Your task to perform on an android device: Go to accessibility settings Image 0: 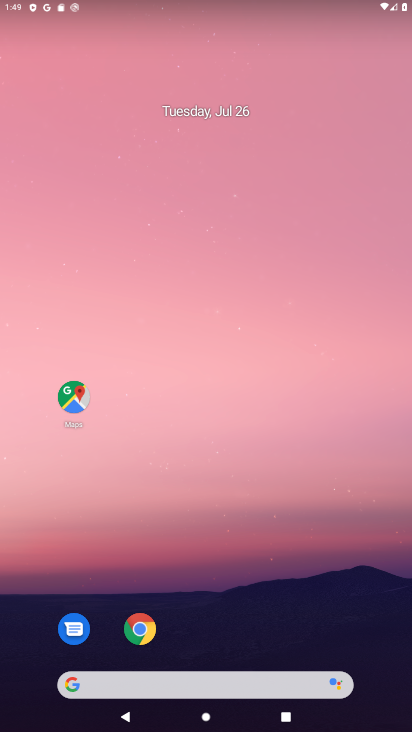
Step 0: drag from (226, 597) to (402, 277)
Your task to perform on an android device: Go to accessibility settings Image 1: 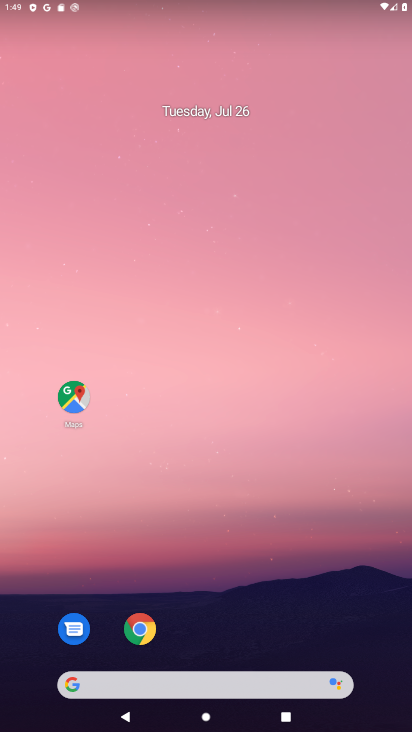
Step 1: drag from (312, 531) to (247, 5)
Your task to perform on an android device: Go to accessibility settings Image 2: 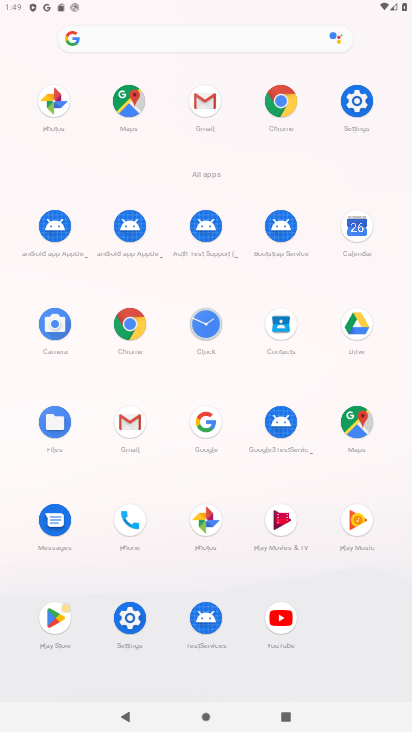
Step 2: click (123, 627)
Your task to perform on an android device: Go to accessibility settings Image 3: 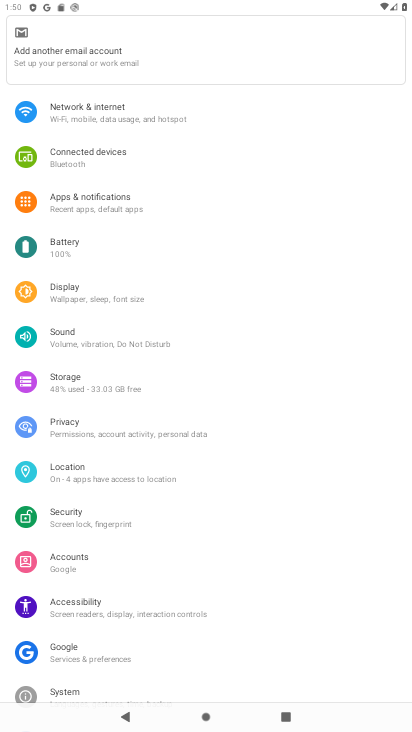
Step 3: click (138, 612)
Your task to perform on an android device: Go to accessibility settings Image 4: 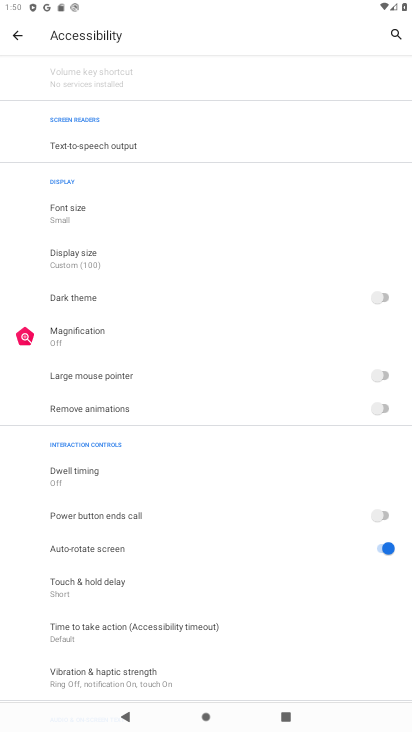
Step 4: task complete